Your task to perform on an android device: What's the weather going to be this weekend? Image 0: 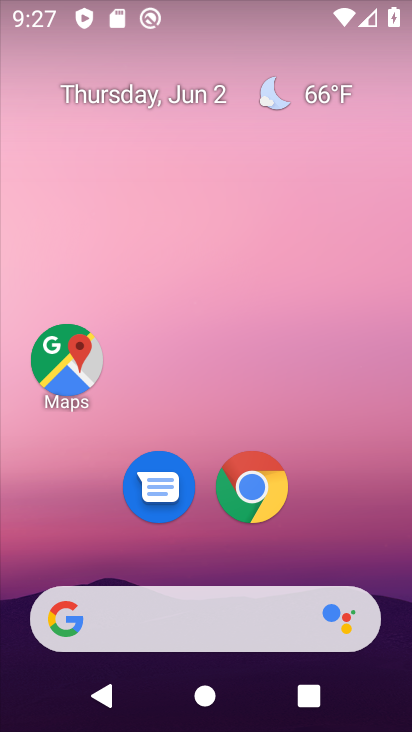
Step 0: drag from (227, 726) to (194, 76)
Your task to perform on an android device: What's the weather going to be this weekend? Image 1: 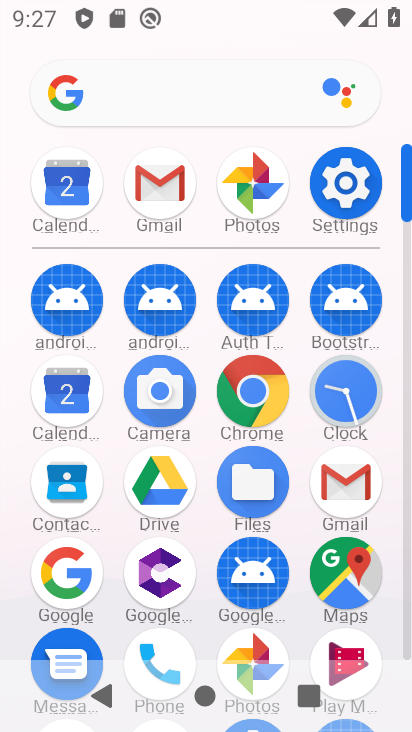
Step 1: click (68, 570)
Your task to perform on an android device: What's the weather going to be this weekend? Image 2: 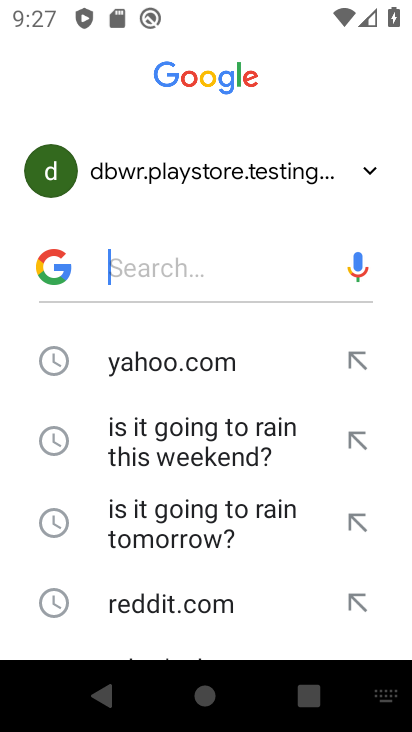
Step 2: click (368, 165)
Your task to perform on an android device: What's the weather going to be this weekend? Image 3: 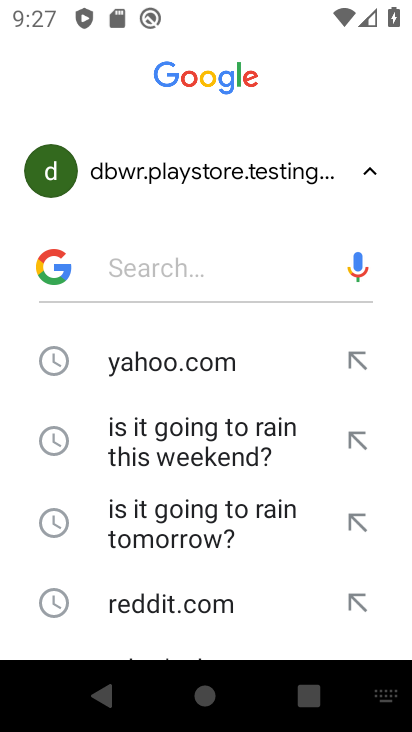
Step 3: press back button
Your task to perform on an android device: What's the weather going to be this weekend? Image 4: 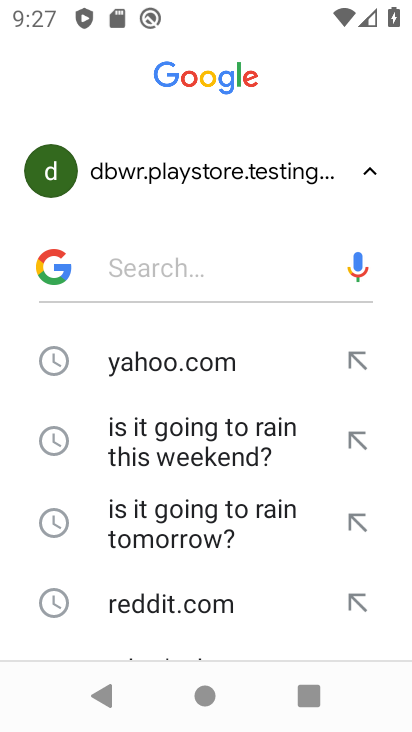
Step 4: press back button
Your task to perform on an android device: What's the weather going to be this weekend? Image 5: 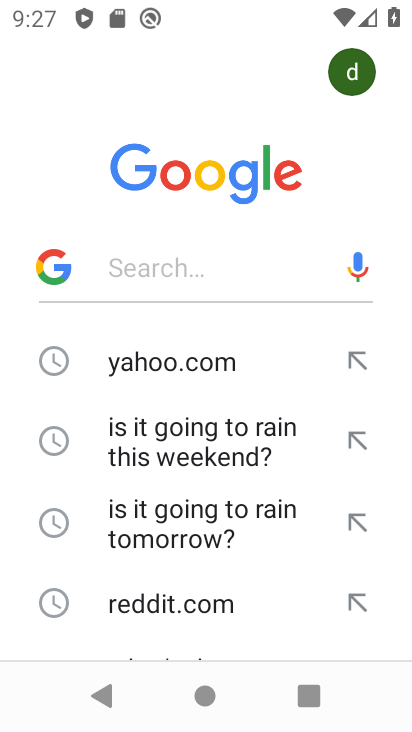
Step 5: click (45, 272)
Your task to perform on an android device: What's the weather going to be this weekend? Image 6: 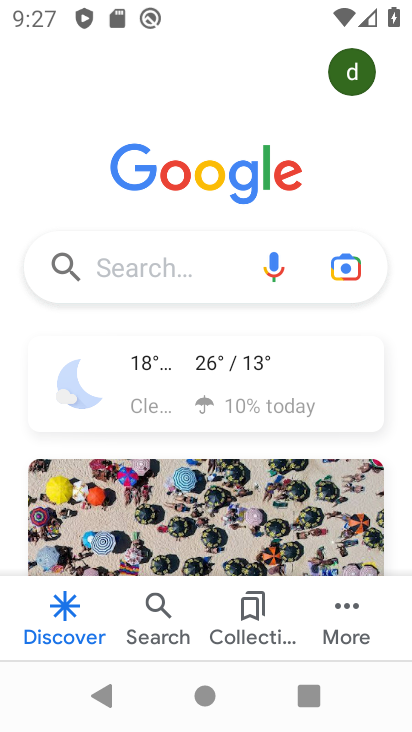
Step 6: click (166, 382)
Your task to perform on an android device: What's the weather going to be this weekend? Image 7: 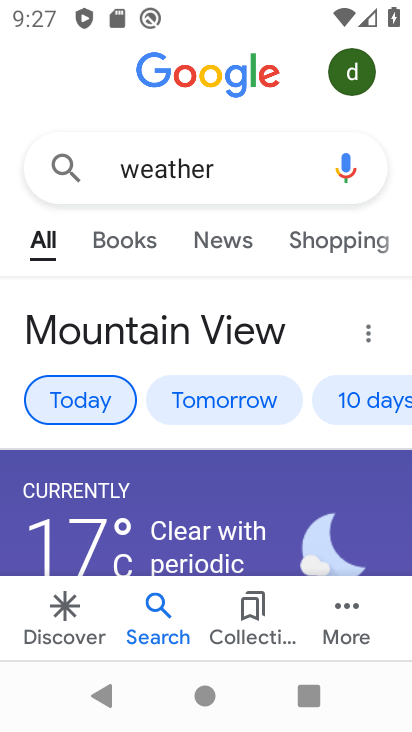
Step 7: click (362, 398)
Your task to perform on an android device: What's the weather going to be this weekend? Image 8: 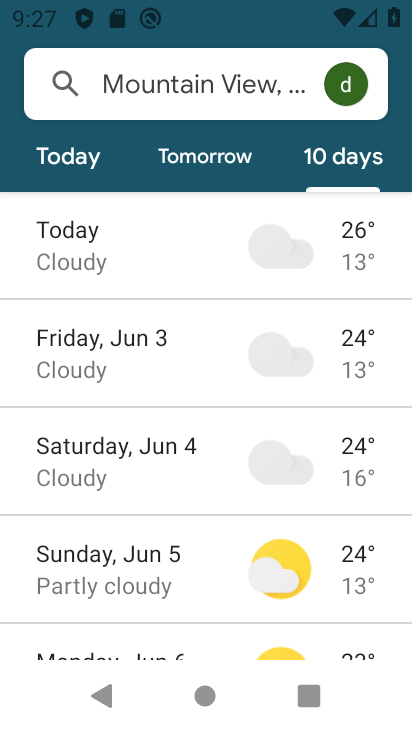
Step 8: click (76, 448)
Your task to perform on an android device: What's the weather going to be this weekend? Image 9: 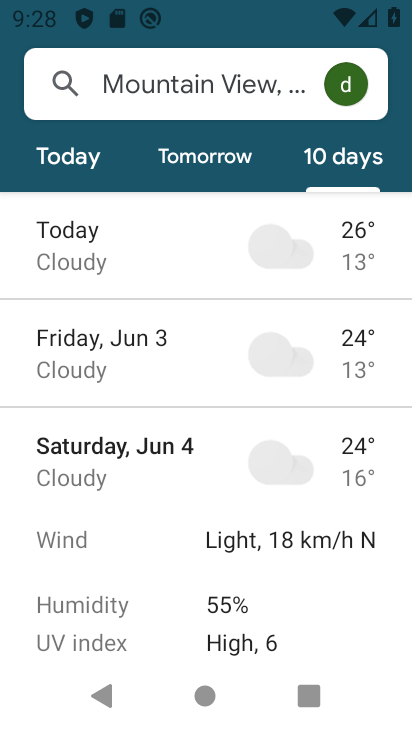
Step 9: task complete